Your task to perform on an android device: see sites visited before in the chrome app Image 0: 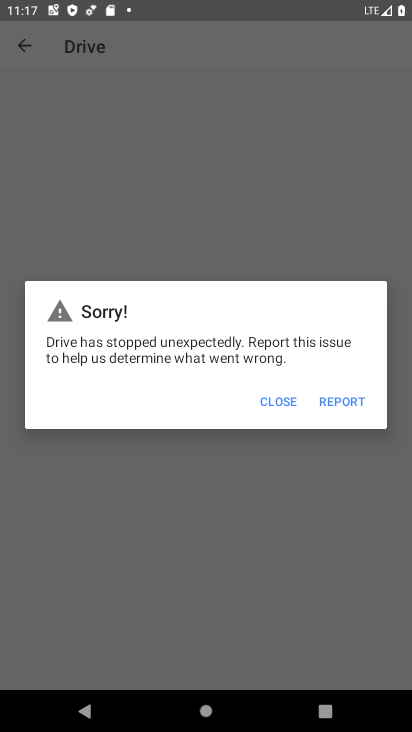
Step 0: press home button
Your task to perform on an android device: see sites visited before in the chrome app Image 1: 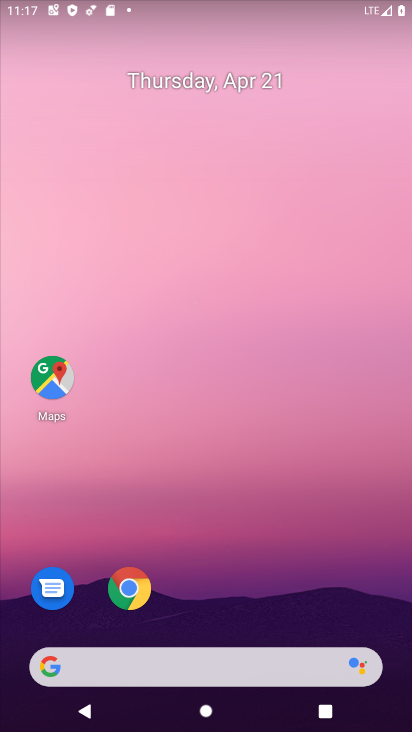
Step 1: drag from (280, 657) to (209, 174)
Your task to perform on an android device: see sites visited before in the chrome app Image 2: 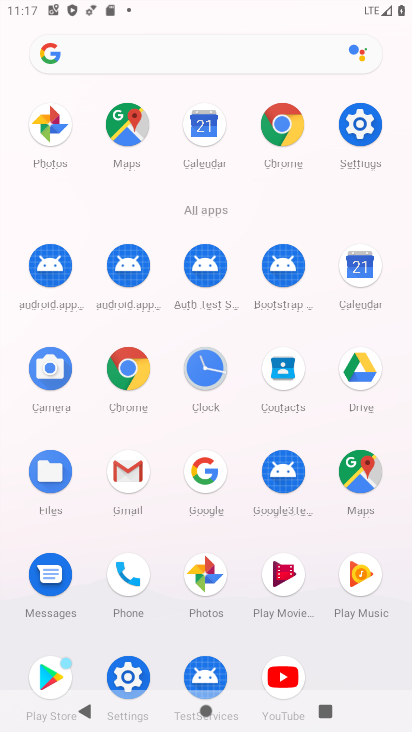
Step 2: click (282, 131)
Your task to perform on an android device: see sites visited before in the chrome app Image 3: 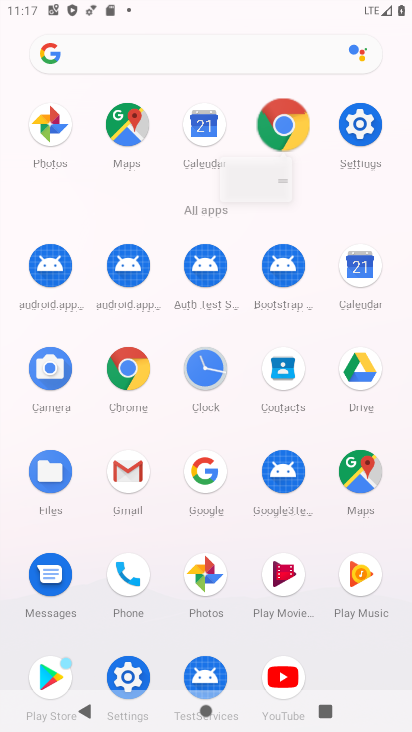
Step 3: click (283, 127)
Your task to perform on an android device: see sites visited before in the chrome app Image 4: 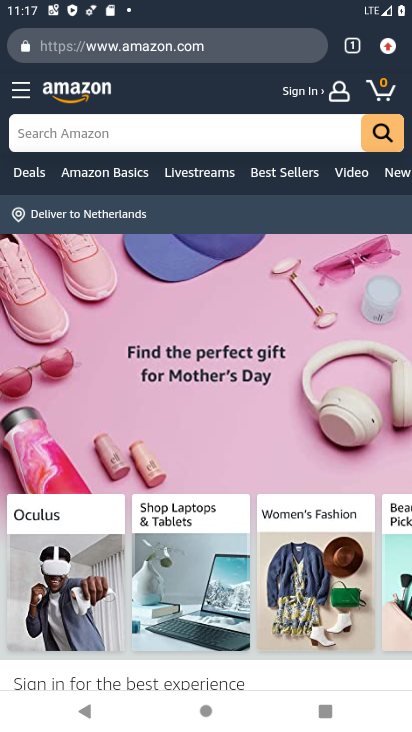
Step 4: click (382, 52)
Your task to perform on an android device: see sites visited before in the chrome app Image 5: 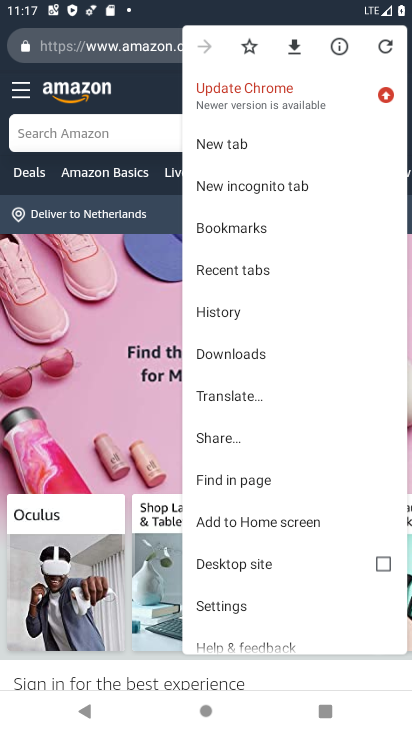
Step 5: click (228, 604)
Your task to perform on an android device: see sites visited before in the chrome app Image 6: 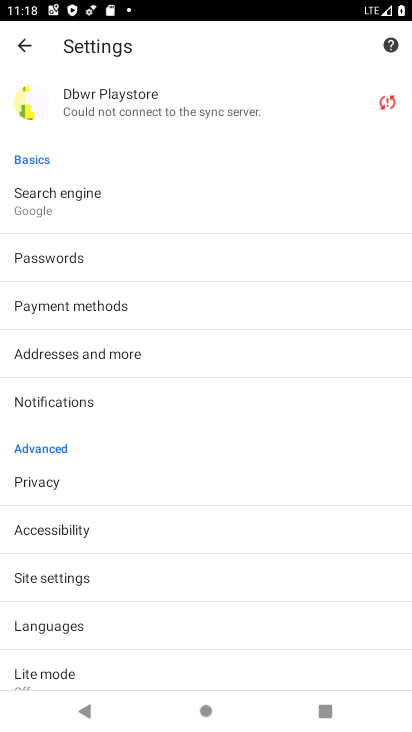
Step 6: click (81, 574)
Your task to perform on an android device: see sites visited before in the chrome app Image 7: 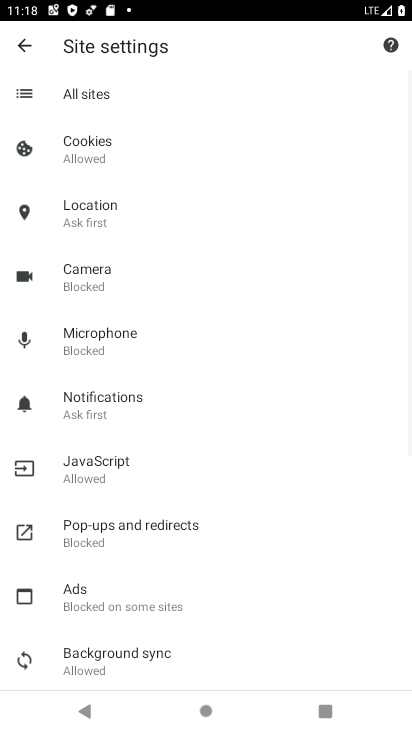
Step 7: click (97, 94)
Your task to perform on an android device: see sites visited before in the chrome app Image 8: 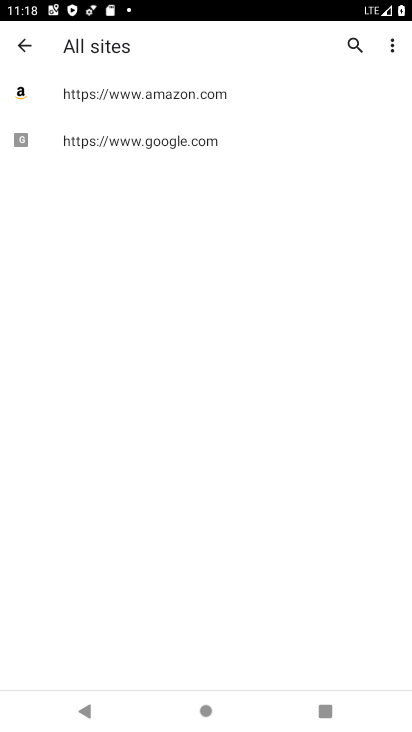
Step 8: task complete